Your task to perform on an android device: Open ESPN.com Image 0: 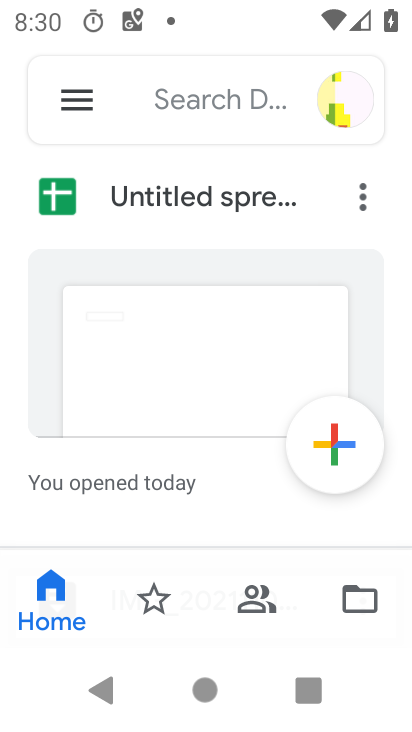
Step 0: press home button
Your task to perform on an android device: Open ESPN.com Image 1: 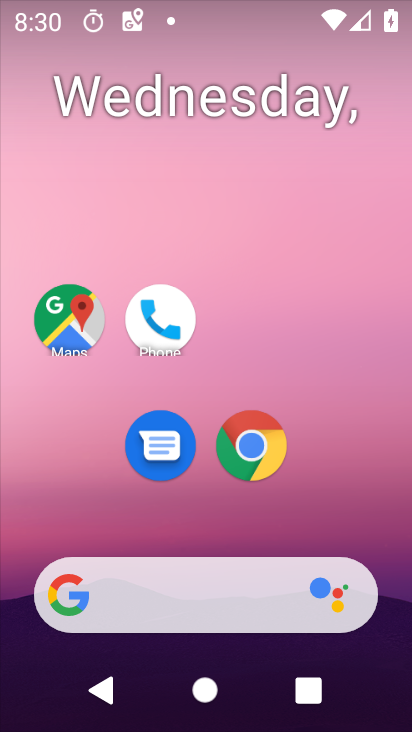
Step 1: click (246, 469)
Your task to perform on an android device: Open ESPN.com Image 2: 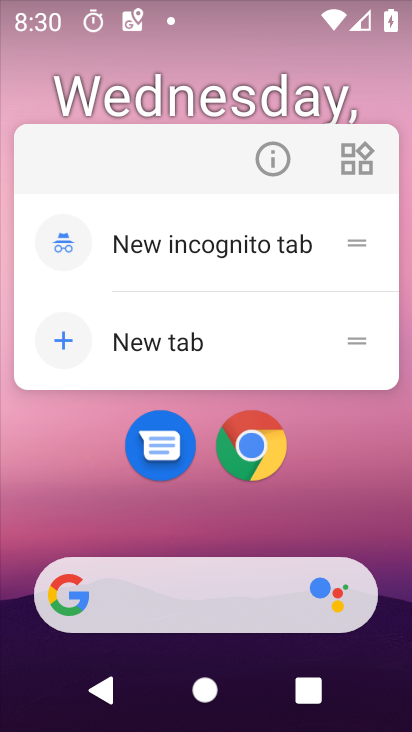
Step 2: click (263, 464)
Your task to perform on an android device: Open ESPN.com Image 3: 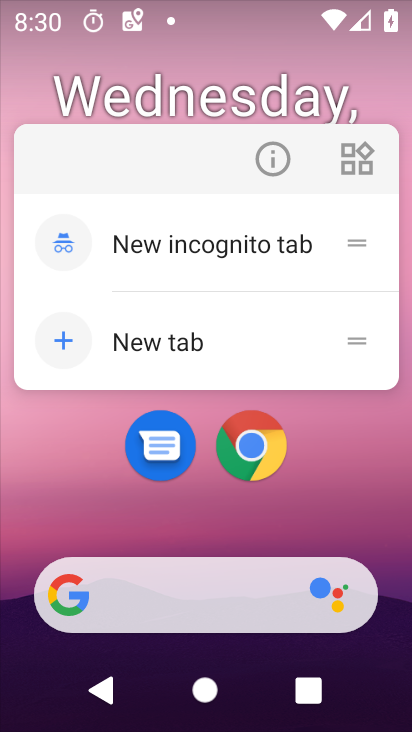
Step 3: click (261, 477)
Your task to perform on an android device: Open ESPN.com Image 4: 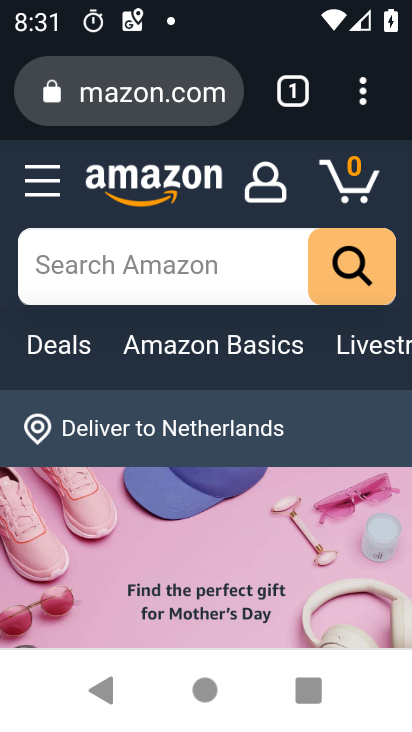
Step 4: press back button
Your task to perform on an android device: Open ESPN.com Image 5: 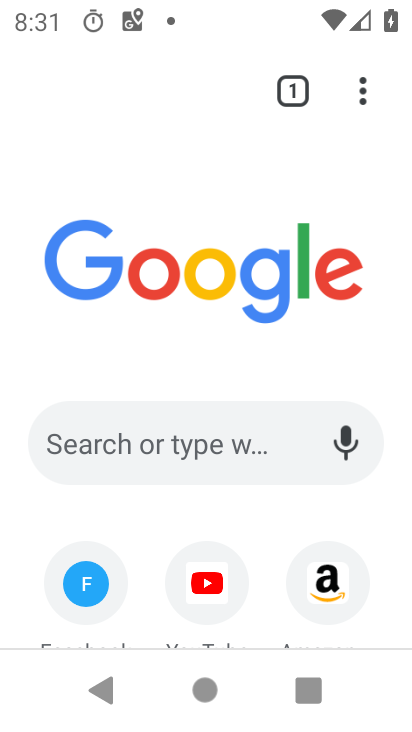
Step 5: drag from (297, 605) to (283, 133)
Your task to perform on an android device: Open ESPN.com Image 6: 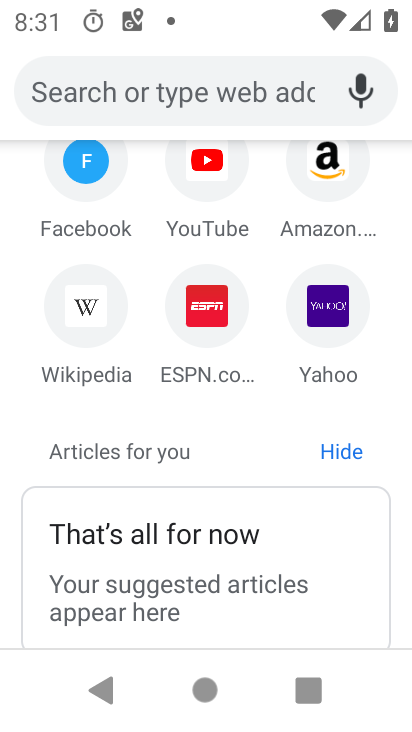
Step 6: click (204, 333)
Your task to perform on an android device: Open ESPN.com Image 7: 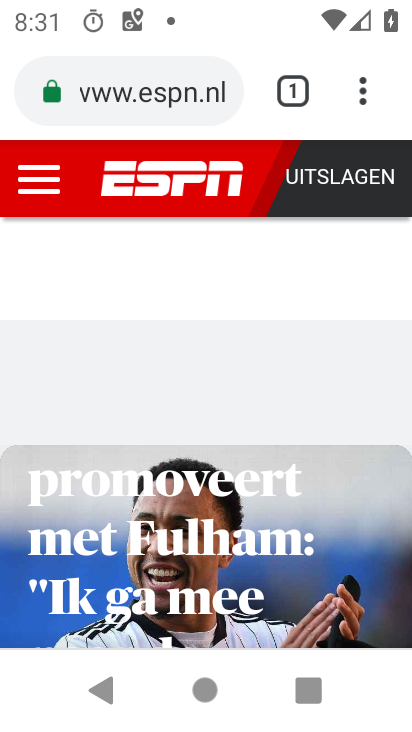
Step 7: task complete